Your task to perform on an android device: Go to Yahoo.com Image 0: 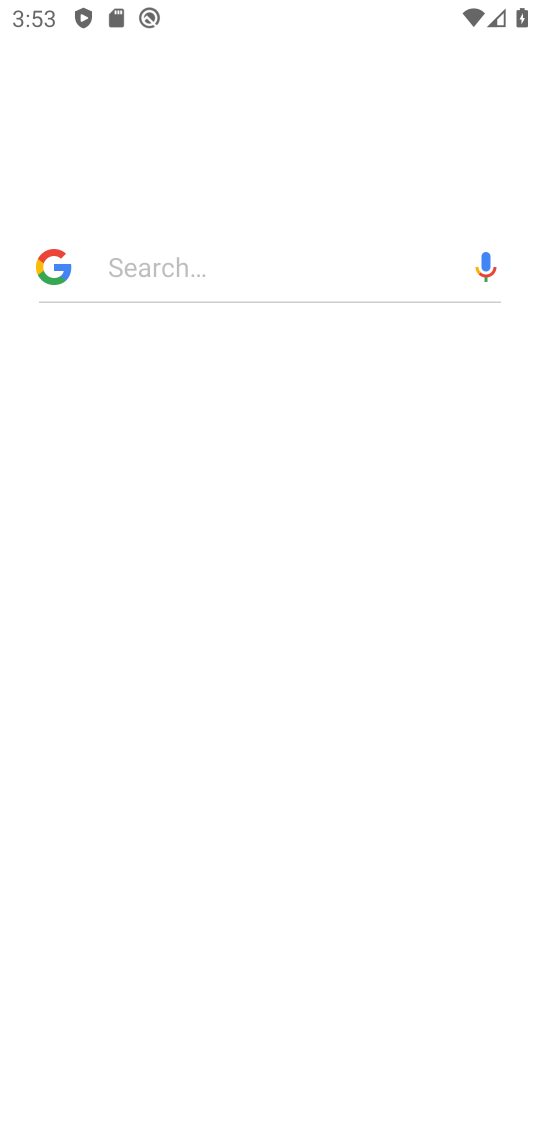
Step 0: press home button
Your task to perform on an android device: Go to Yahoo.com Image 1: 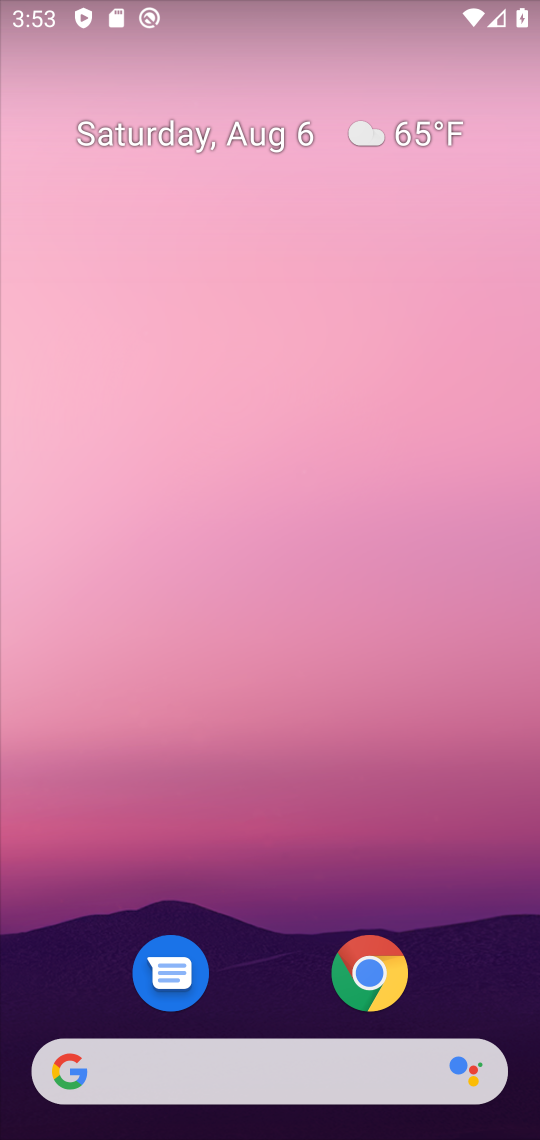
Step 1: drag from (468, 918) to (515, 10)
Your task to perform on an android device: Go to Yahoo.com Image 2: 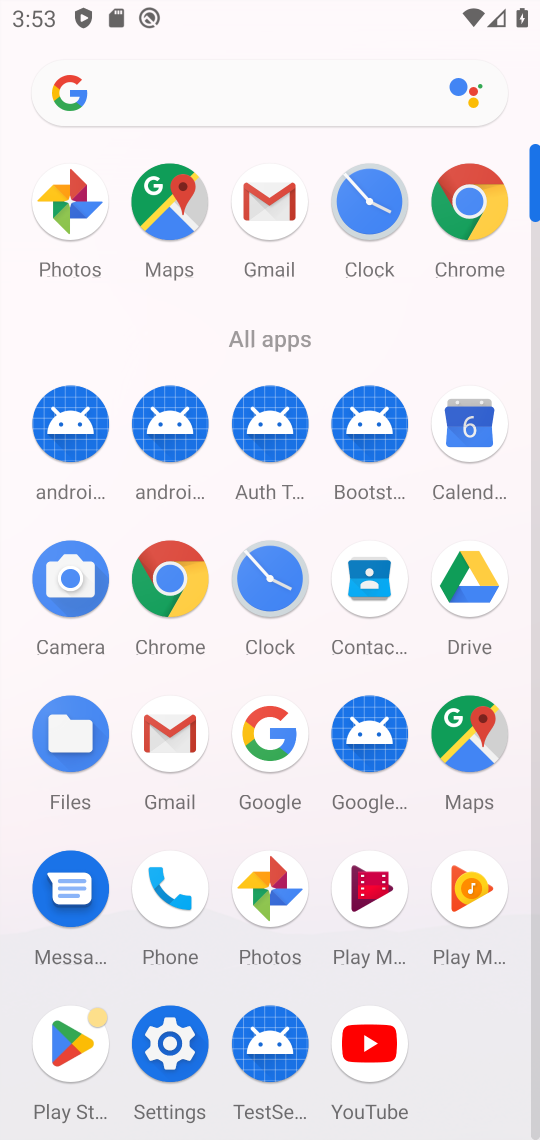
Step 2: click (169, 585)
Your task to perform on an android device: Go to Yahoo.com Image 3: 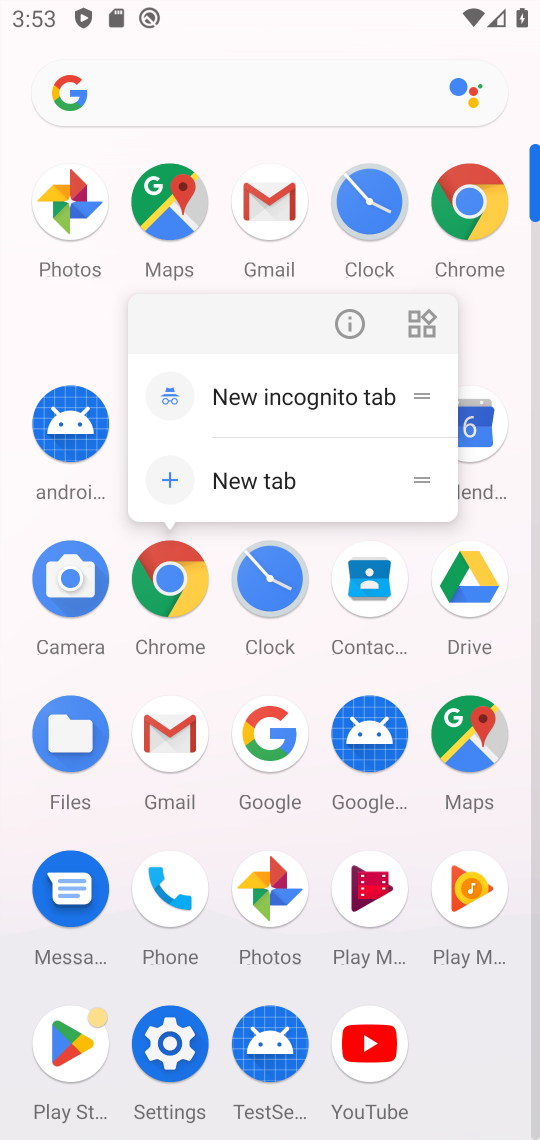
Step 3: click (169, 584)
Your task to perform on an android device: Go to Yahoo.com Image 4: 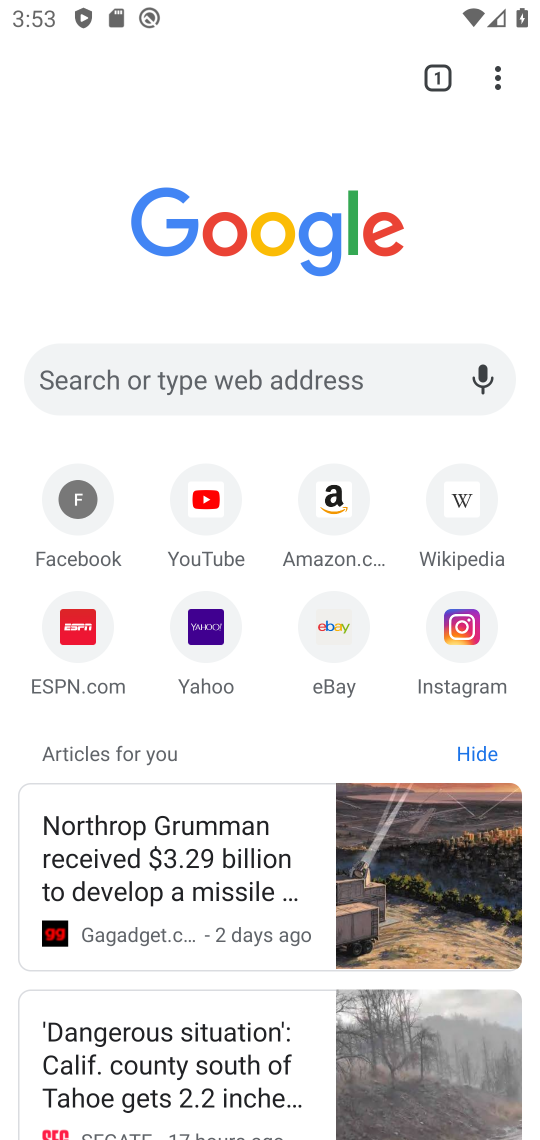
Step 4: click (202, 618)
Your task to perform on an android device: Go to Yahoo.com Image 5: 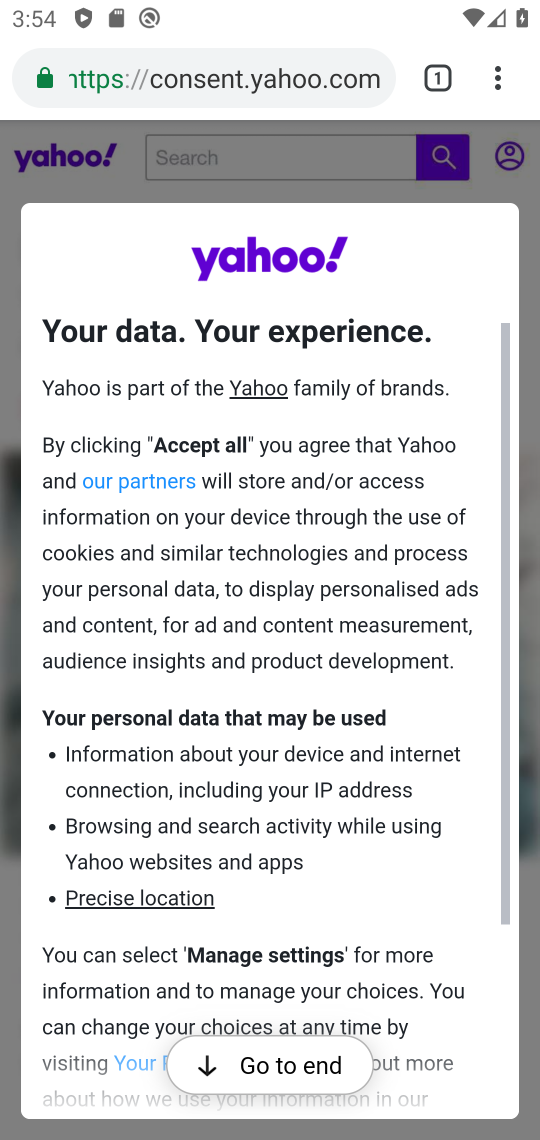
Step 5: task complete